Your task to perform on an android device: Search for pizza restaurants on Maps Image 0: 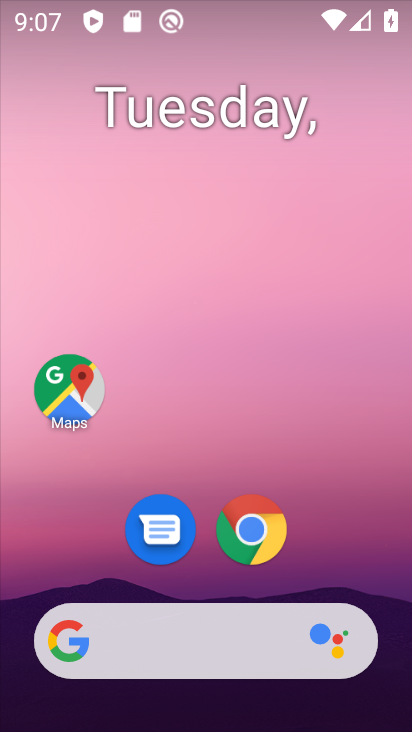
Step 0: drag from (344, 532) to (357, 56)
Your task to perform on an android device: Search for pizza restaurants on Maps Image 1: 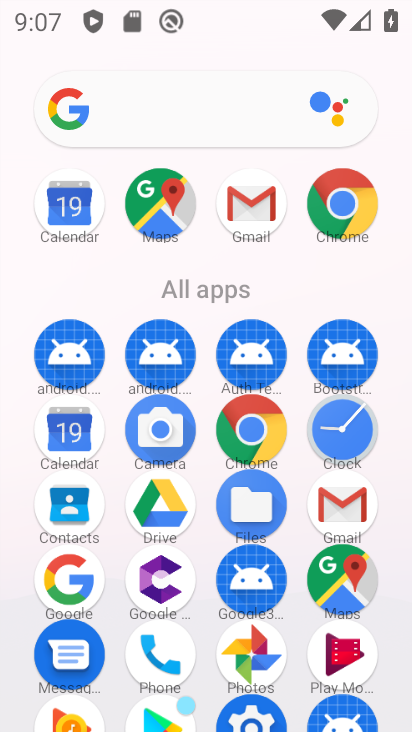
Step 1: click (354, 576)
Your task to perform on an android device: Search for pizza restaurants on Maps Image 2: 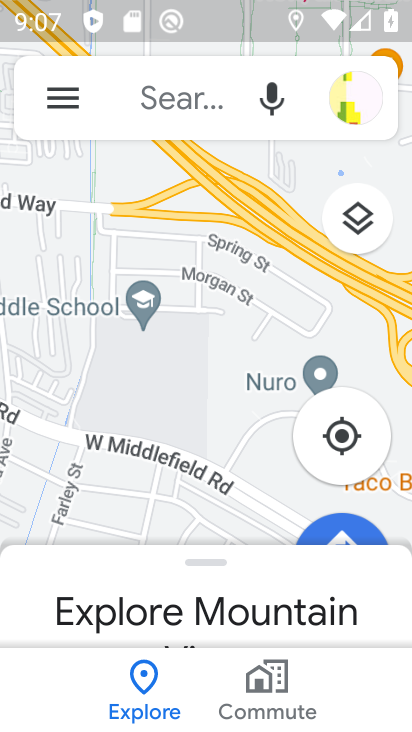
Step 2: click (216, 101)
Your task to perform on an android device: Search for pizza restaurants on Maps Image 3: 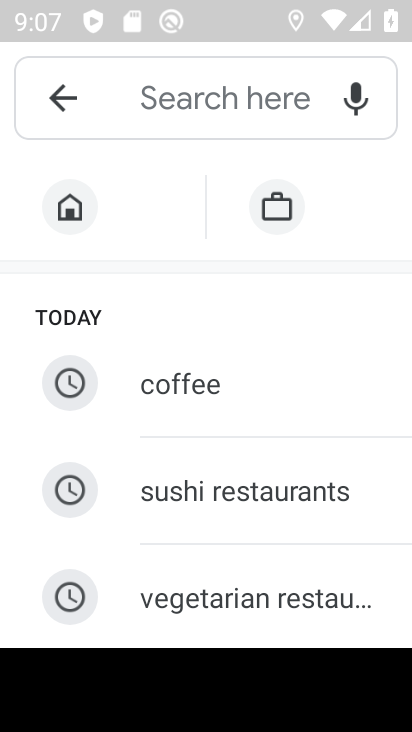
Step 3: type "pizza restaurant"
Your task to perform on an android device: Search for pizza restaurants on Maps Image 4: 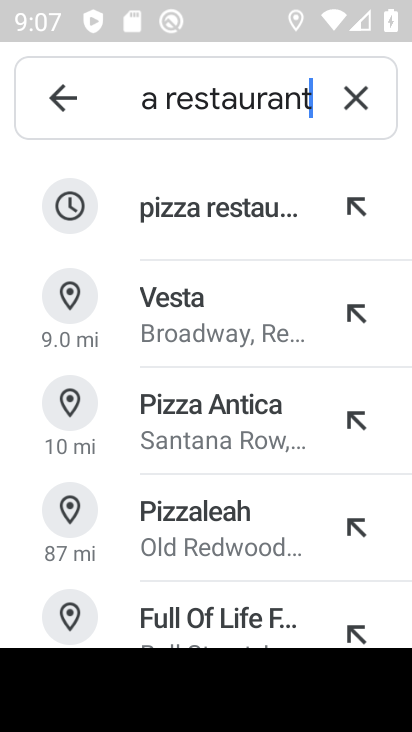
Step 4: click (254, 213)
Your task to perform on an android device: Search for pizza restaurants on Maps Image 5: 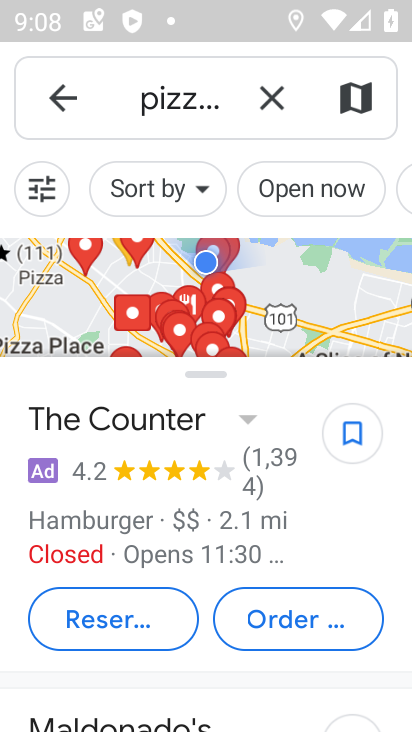
Step 5: task complete